Your task to perform on an android device: Open Google Chrome Image 0: 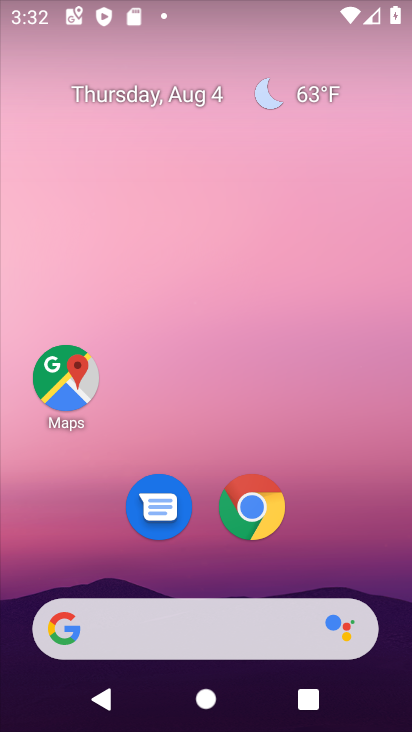
Step 0: click (232, 517)
Your task to perform on an android device: Open Google Chrome Image 1: 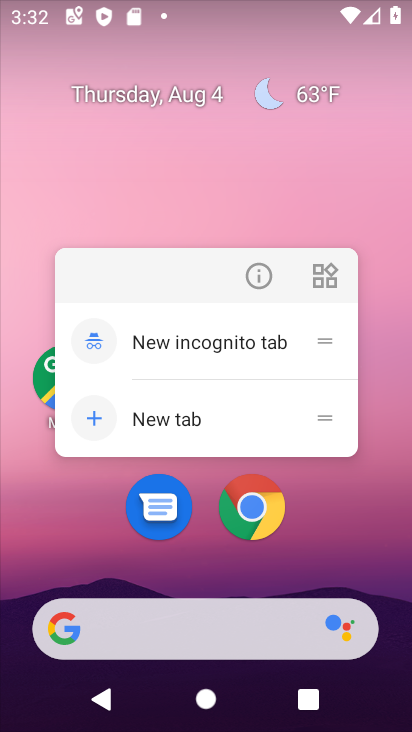
Step 1: click (260, 507)
Your task to perform on an android device: Open Google Chrome Image 2: 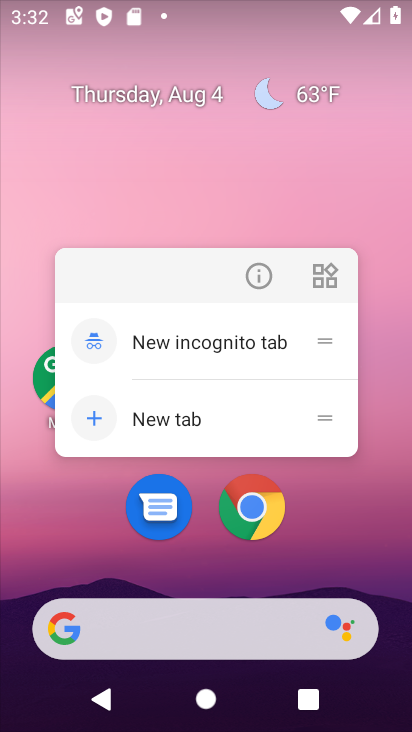
Step 2: task complete